Your task to perform on an android device: Show me popular videos on Youtube Image 0: 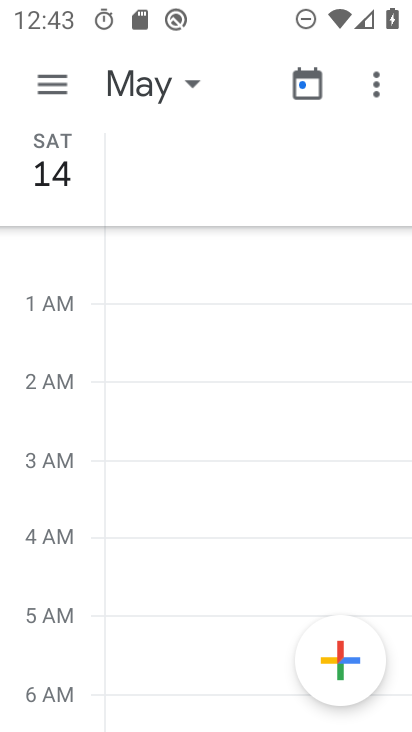
Step 0: press home button
Your task to perform on an android device: Show me popular videos on Youtube Image 1: 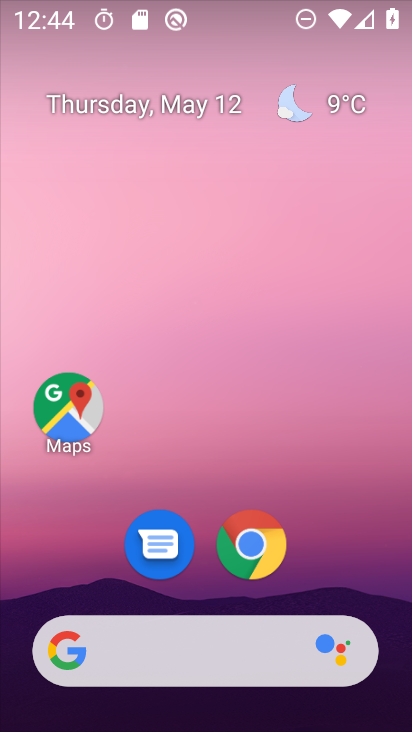
Step 1: drag from (197, 723) to (186, 182)
Your task to perform on an android device: Show me popular videos on Youtube Image 2: 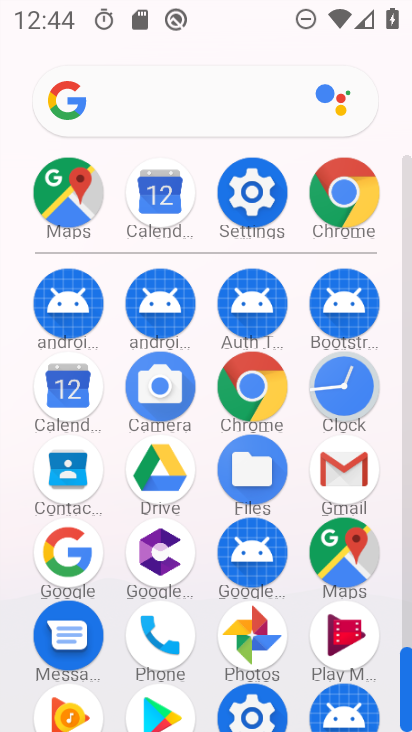
Step 2: drag from (212, 677) to (182, 219)
Your task to perform on an android device: Show me popular videos on Youtube Image 3: 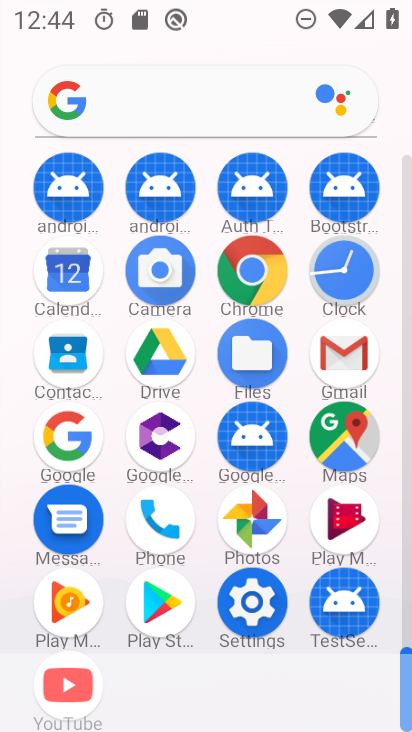
Step 3: click (71, 667)
Your task to perform on an android device: Show me popular videos on Youtube Image 4: 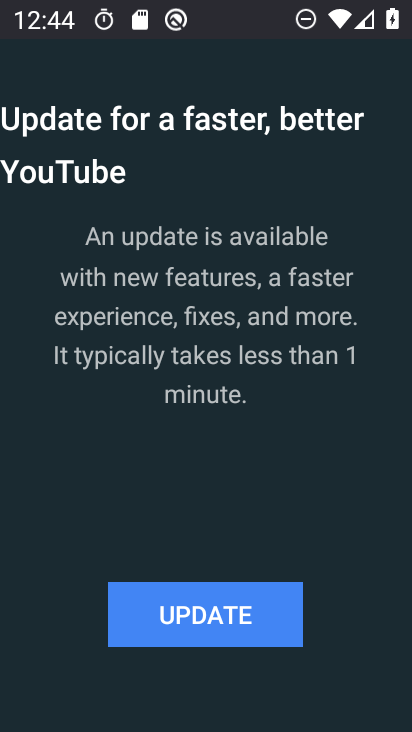
Step 4: task complete